Your task to perform on an android device: Search for Mexican restaurants on Maps Image 0: 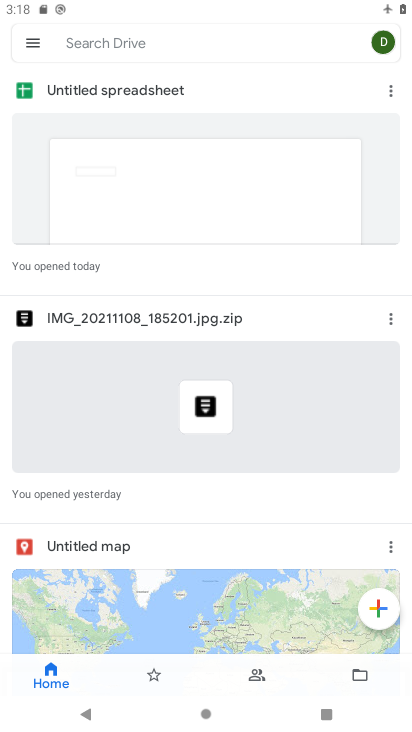
Step 0: press home button
Your task to perform on an android device: Search for Mexican restaurants on Maps Image 1: 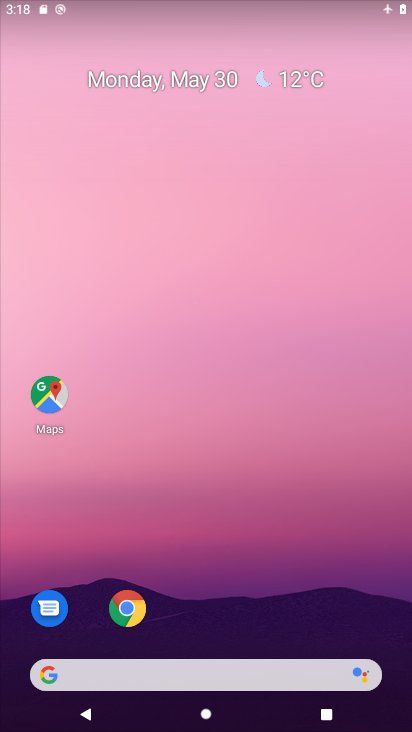
Step 1: click (47, 388)
Your task to perform on an android device: Search for Mexican restaurants on Maps Image 2: 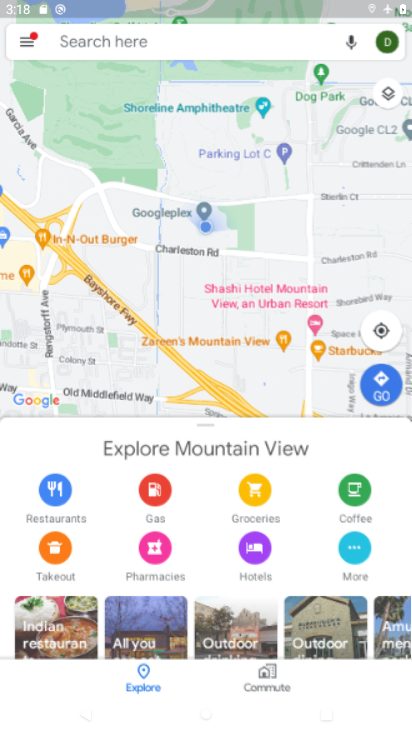
Step 2: click (197, 48)
Your task to perform on an android device: Search for Mexican restaurants on Maps Image 3: 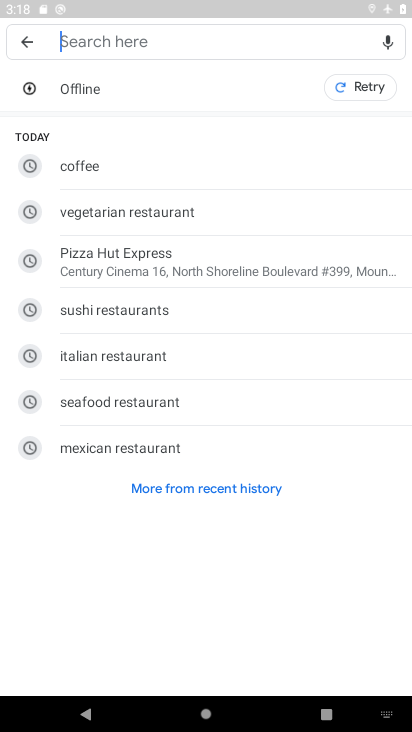
Step 3: click (157, 447)
Your task to perform on an android device: Search for Mexican restaurants on Maps Image 4: 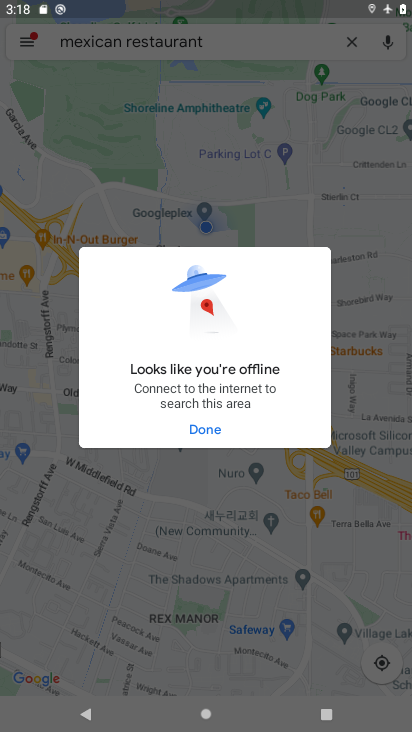
Step 4: click (220, 424)
Your task to perform on an android device: Search for Mexican restaurants on Maps Image 5: 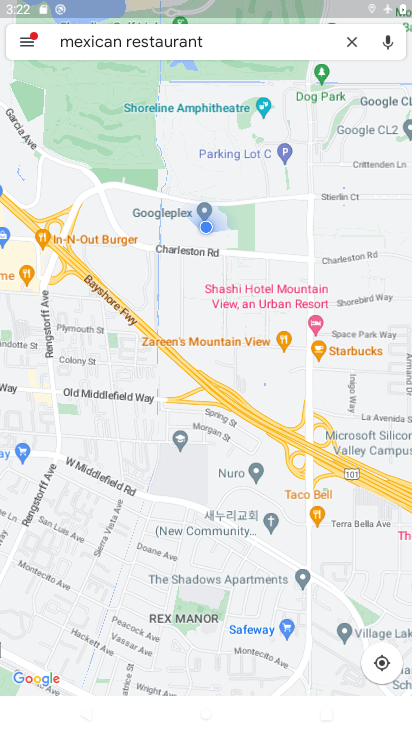
Step 5: task complete